Your task to perform on an android device: Open Reddit.com Image 0: 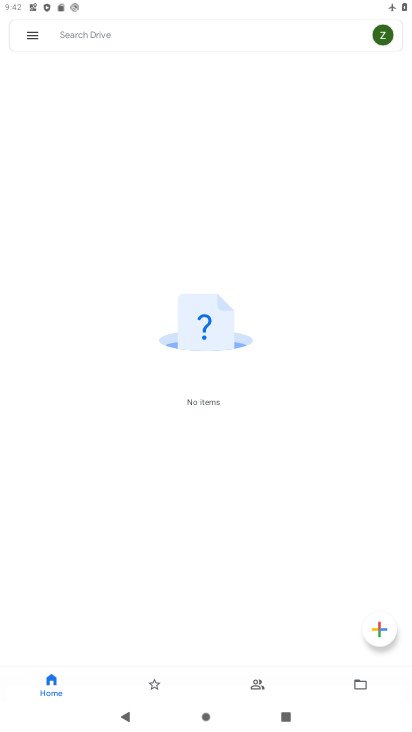
Step 0: press home button
Your task to perform on an android device: Open Reddit.com Image 1: 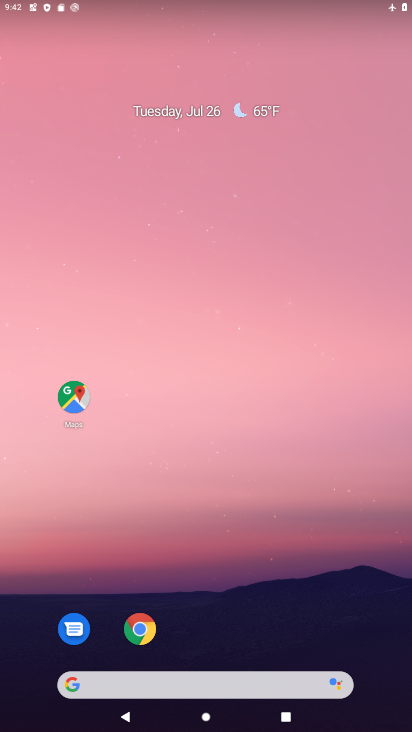
Step 1: drag from (301, 610) to (279, 61)
Your task to perform on an android device: Open Reddit.com Image 2: 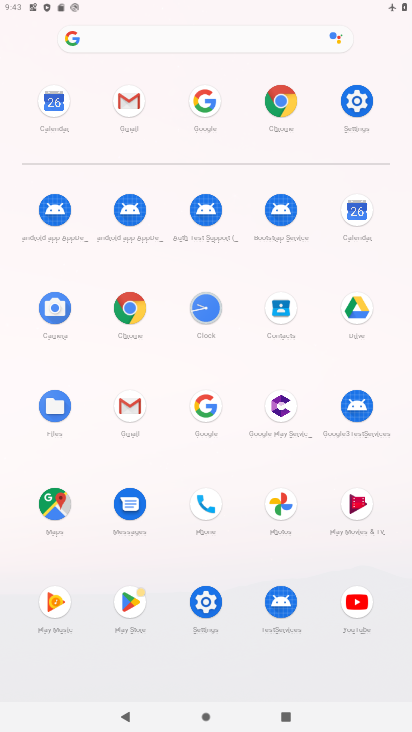
Step 2: click (284, 97)
Your task to perform on an android device: Open Reddit.com Image 3: 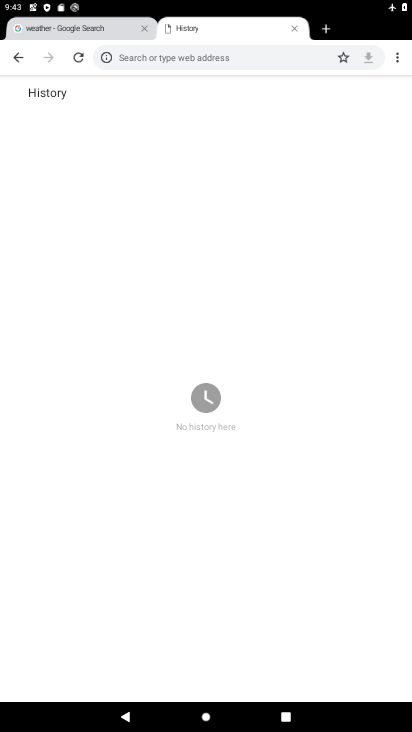
Step 3: click (215, 64)
Your task to perform on an android device: Open Reddit.com Image 4: 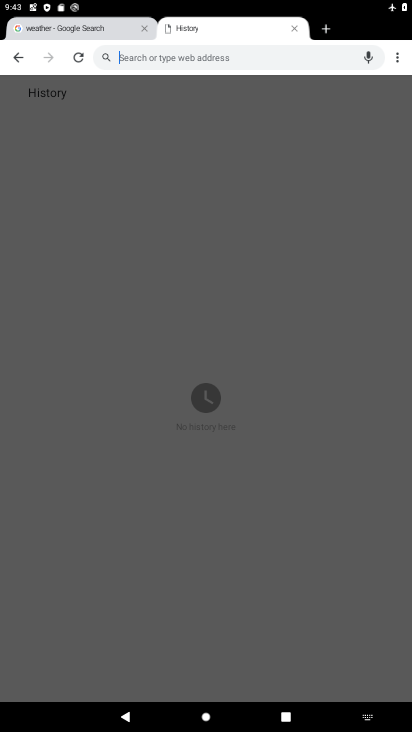
Step 4: type "reddit.com"
Your task to perform on an android device: Open Reddit.com Image 5: 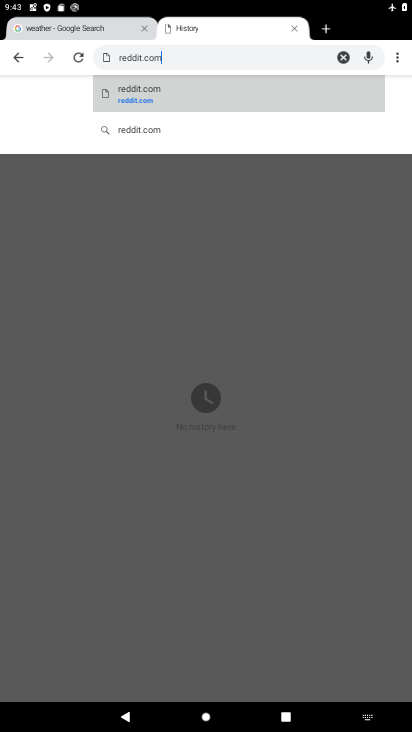
Step 5: click (262, 113)
Your task to perform on an android device: Open Reddit.com Image 6: 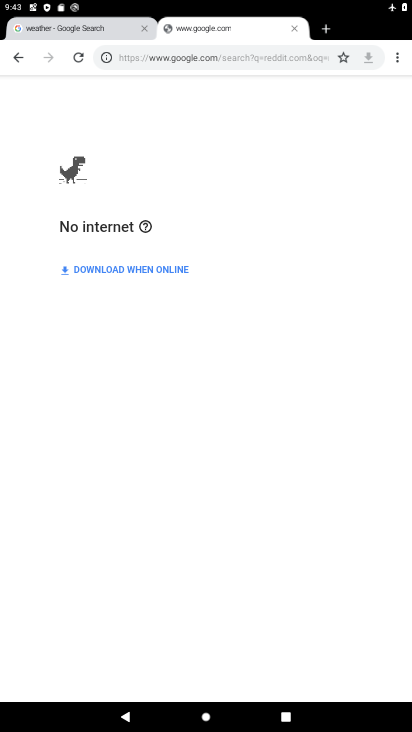
Step 6: task complete